Your task to perform on an android device: turn off sleep mode Image 0: 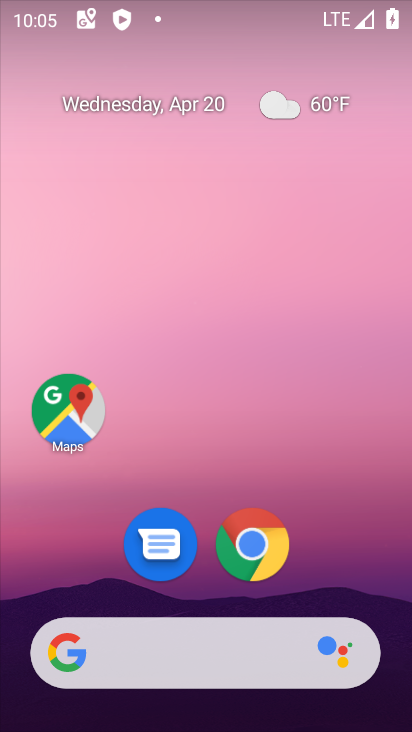
Step 0: drag from (383, 539) to (350, 117)
Your task to perform on an android device: turn off sleep mode Image 1: 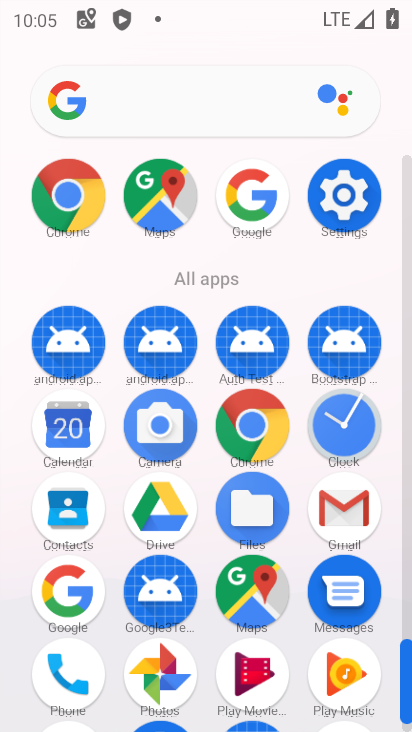
Step 1: click (334, 193)
Your task to perform on an android device: turn off sleep mode Image 2: 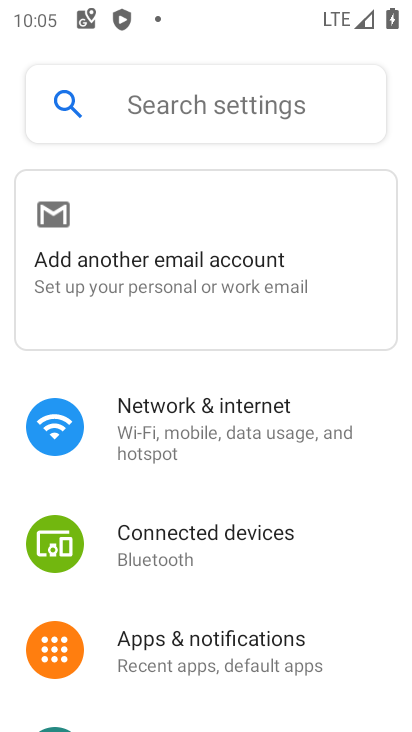
Step 2: drag from (264, 566) to (231, 154)
Your task to perform on an android device: turn off sleep mode Image 3: 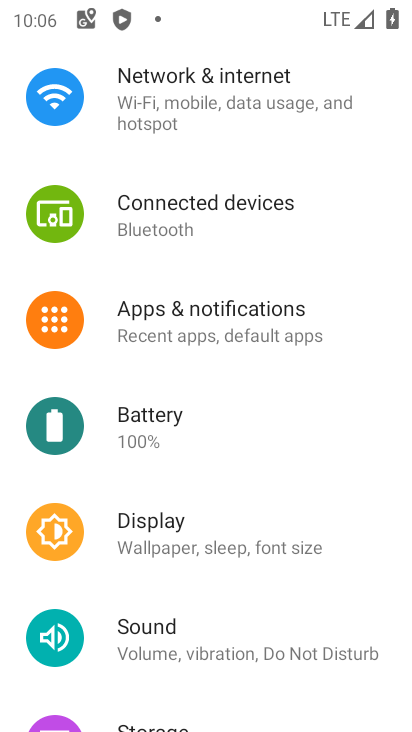
Step 3: click (262, 554)
Your task to perform on an android device: turn off sleep mode Image 4: 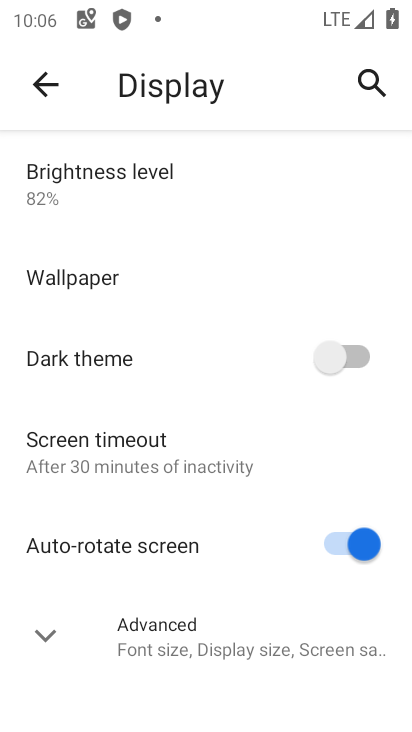
Step 4: click (288, 633)
Your task to perform on an android device: turn off sleep mode Image 5: 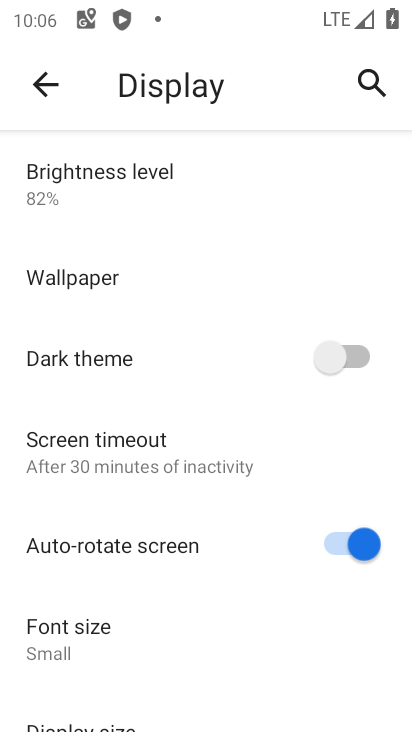
Step 5: task complete